Your task to perform on an android device: View the shopping cart on newegg. Search for "logitech g pro" on newegg, select the first entry, and add it to the cart. Image 0: 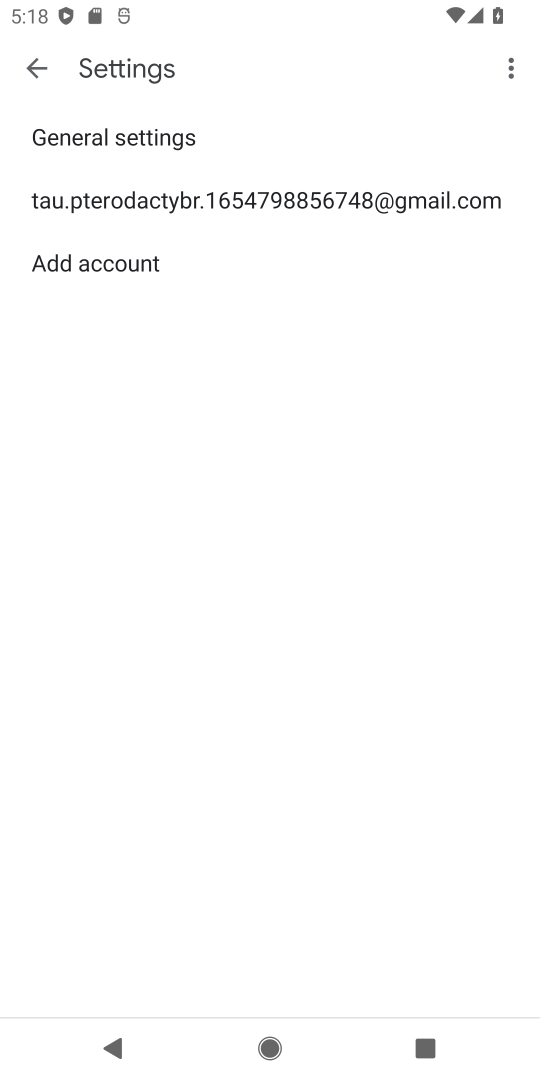
Step 0: press home button
Your task to perform on an android device: View the shopping cart on newegg. Search for "logitech g pro" on newegg, select the first entry, and add it to the cart. Image 1: 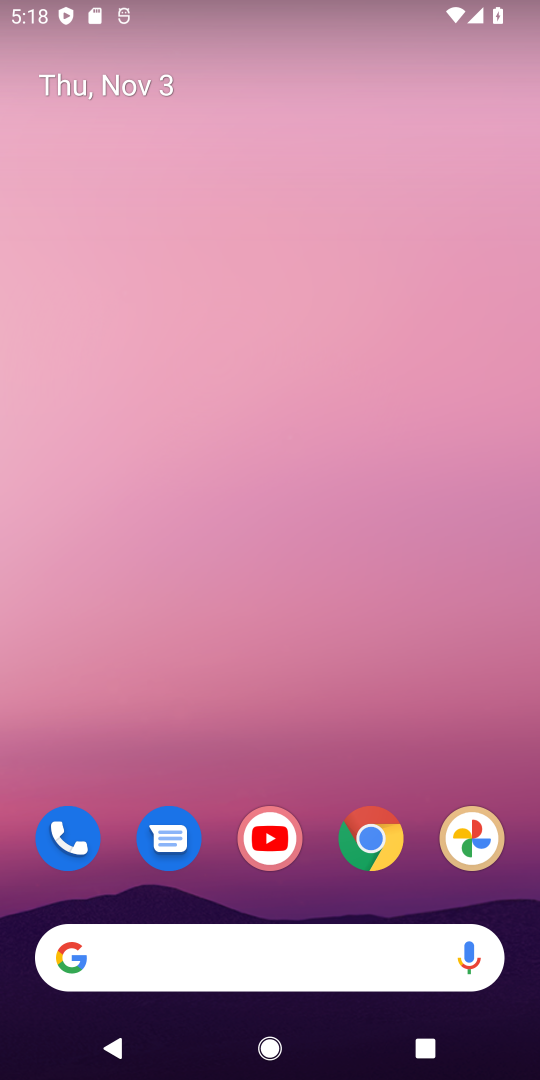
Step 1: click (378, 831)
Your task to perform on an android device: View the shopping cart on newegg. Search for "logitech g pro" on newegg, select the first entry, and add it to the cart. Image 2: 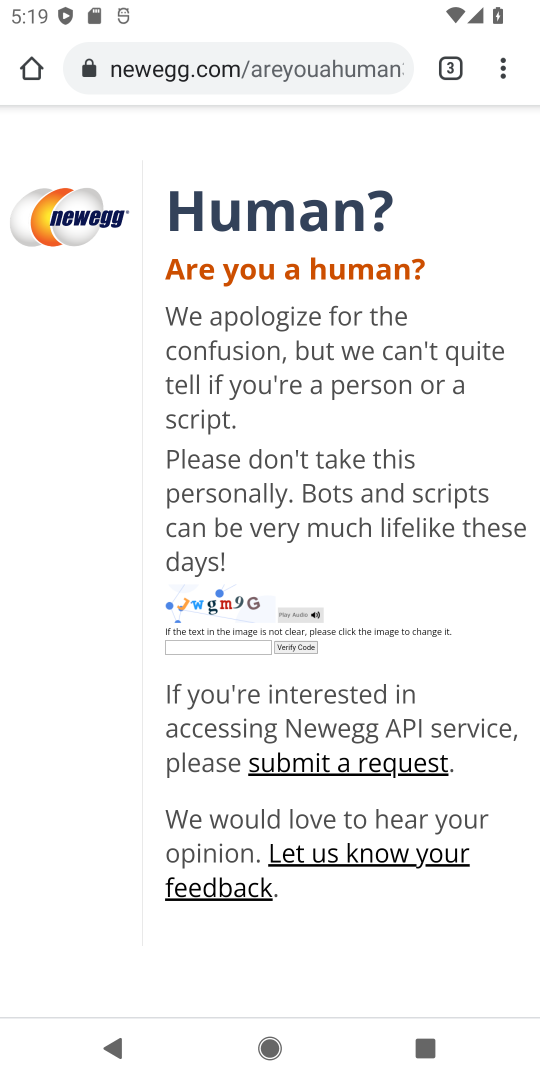
Step 2: click (245, 641)
Your task to perform on an android device: View the shopping cart on newegg. Search for "logitech g pro" on newegg, select the first entry, and add it to the cart. Image 3: 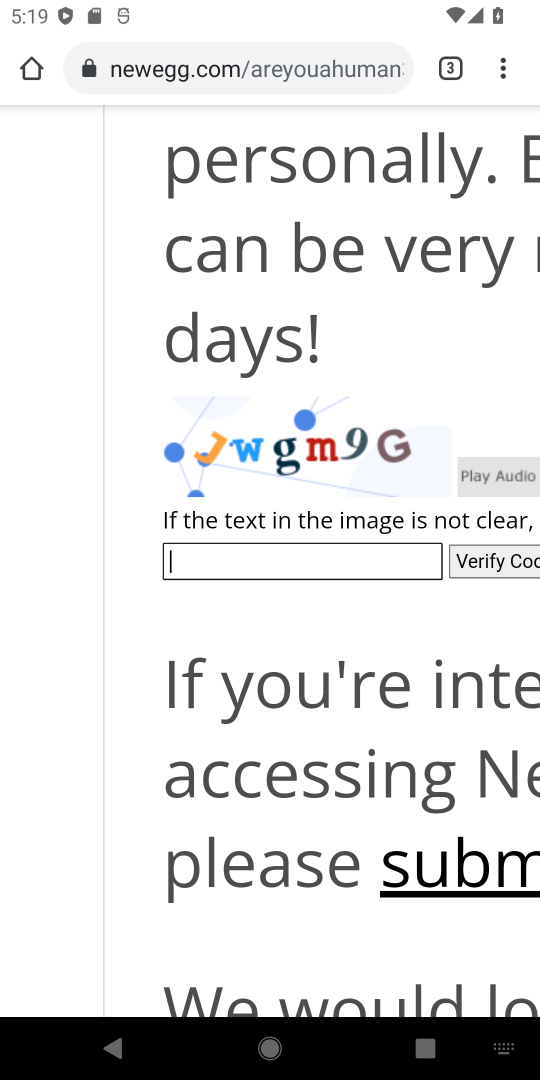
Step 3: type "JWgm9G"
Your task to perform on an android device: View the shopping cart on newegg. Search for "logitech g pro" on newegg, select the first entry, and add it to the cart. Image 4: 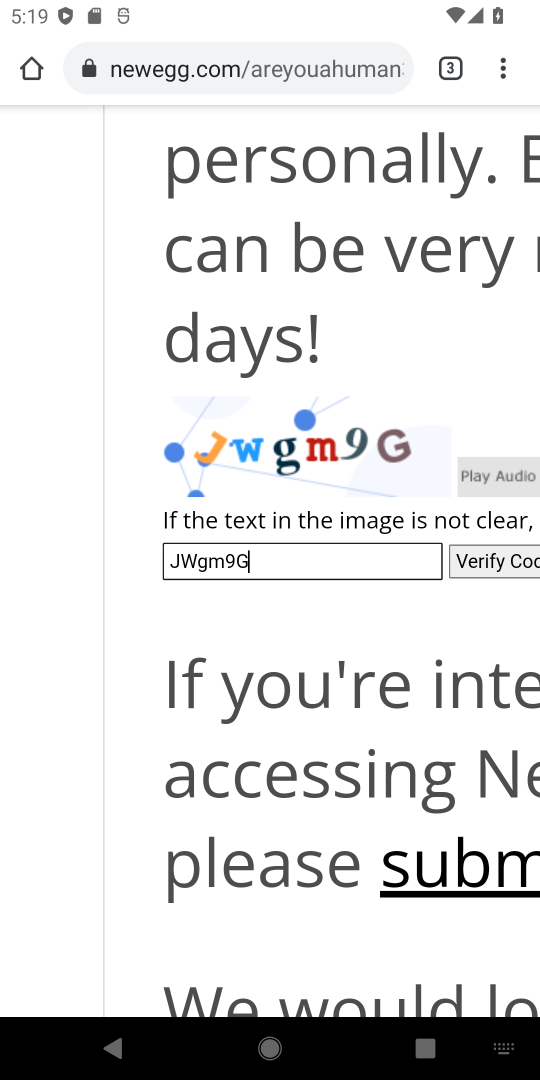
Step 4: click (494, 555)
Your task to perform on an android device: View the shopping cart on newegg. Search for "logitech g pro" on newegg, select the first entry, and add it to the cart. Image 5: 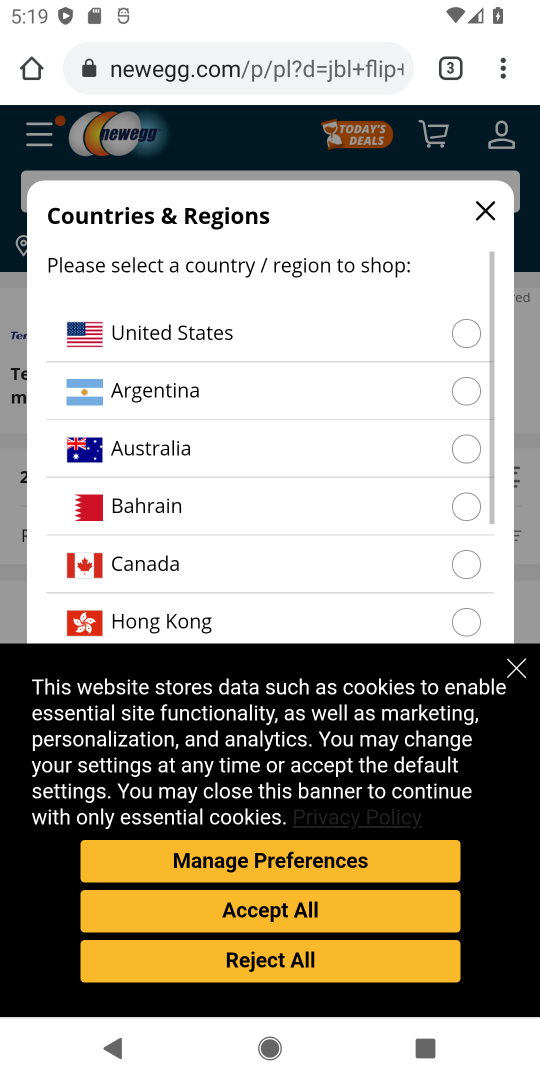
Step 5: click (517, 664)
Your task to perform on an android device: View the shopping cart on newegg. Search for "logitech g pro" on newegg, select the first entry, and add it to the cart. Image 6: 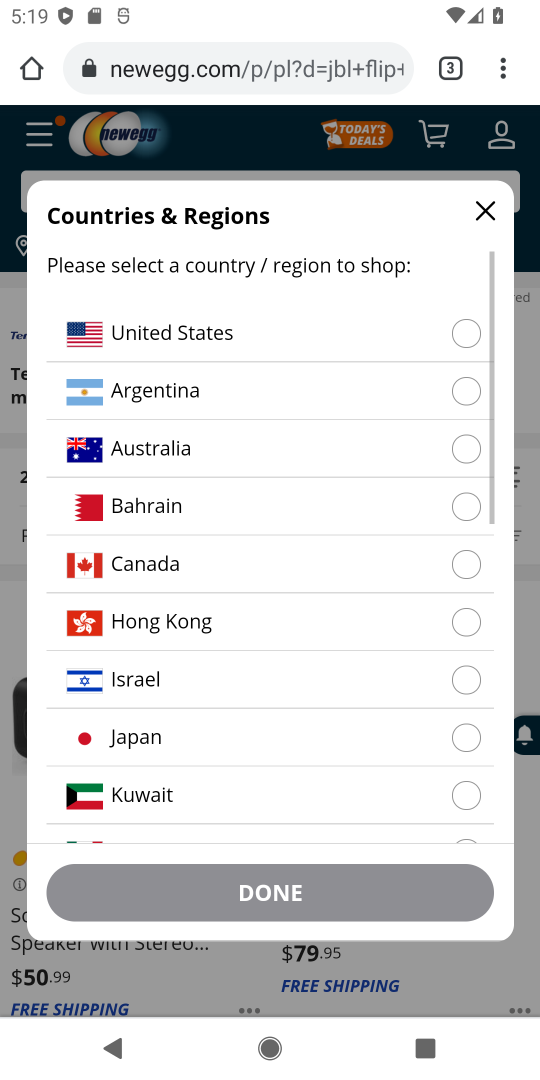
Step 6: click (474, 328)
Your task to perform on an android device: View the shopping cart on newegg. Search for "logitech g pro" on newegg, select the first entry, and add it to the cart. Image 7: 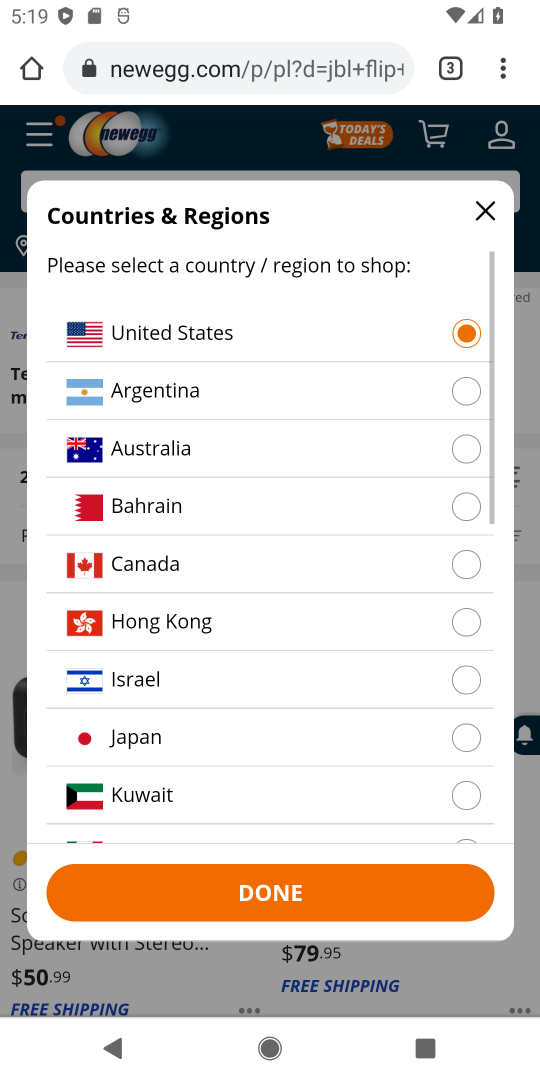
Step 7: click (249, 890)
Your task to perform on an android device: View the shopping cart on newegg. Search for "logitech g pro" on newegg, select the first entry, and add it to the cart. Image 8: 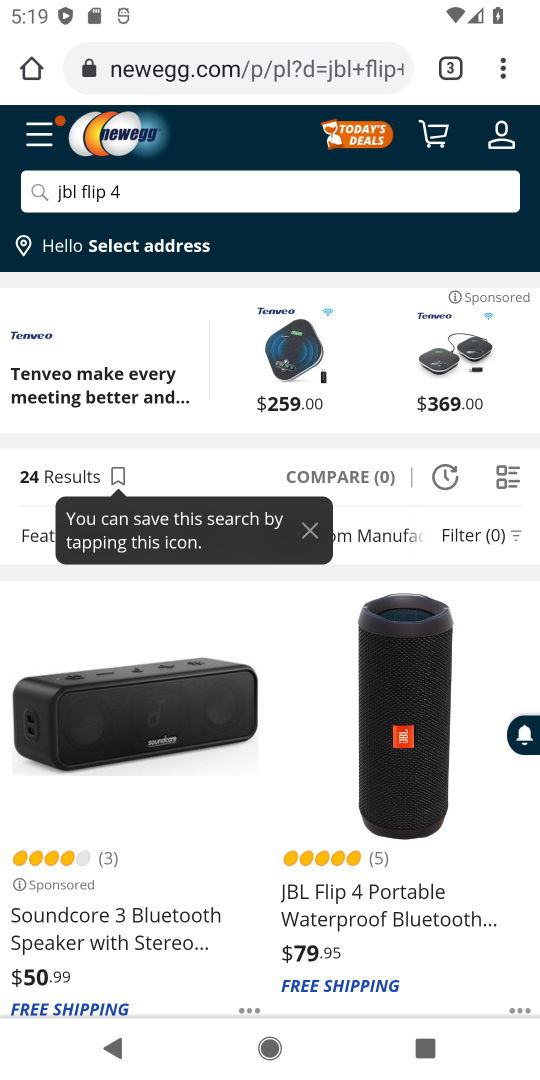
Step 8: click (240, 206)
Your task to perform on an android device: View the shopping cart on newegg. Search for "logitech g pro" on newegg, select the first entry, and add it to the cart. Image 9: 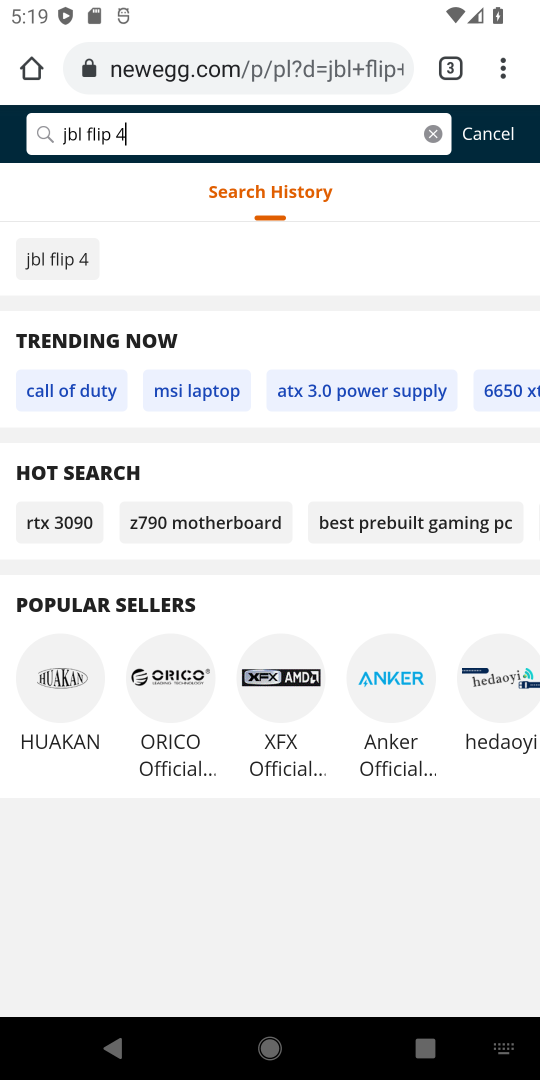
Step 9: click (439, 137)
Your task to perform on an android device: View the shopping cart on newegg. Search for "logitech g pro" on newegg, select the first entry, and add it to the cart. Image 10: 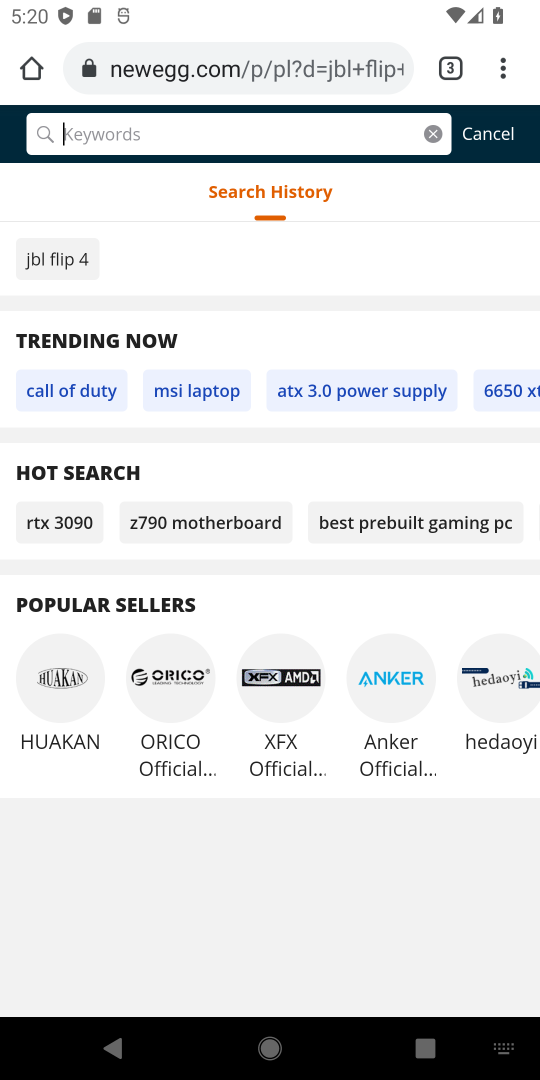
Step 10: type "logitech g pro"
Your task to perform on an android device: View the shopping cart on newegg. Search for "logitech g pro" on newegg, select the first entry, and add it to the cart. Image 11: 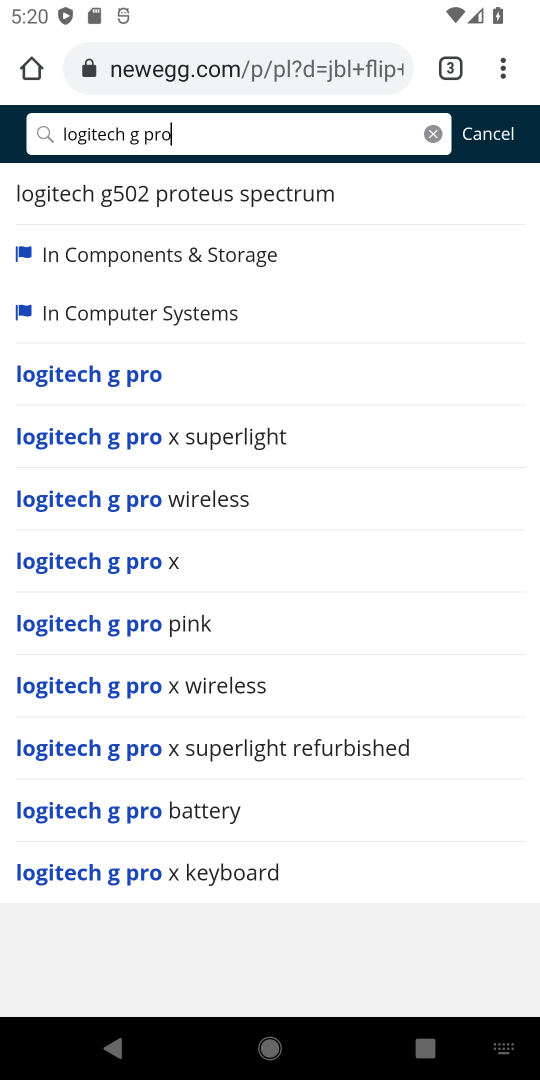
Step 11: click (123, 365)
Your task to perform on an android device: View the shopping cart on newegg. Search for "logitech g pro" on newegg, select the first entry, and add it to the cart. Image 12: 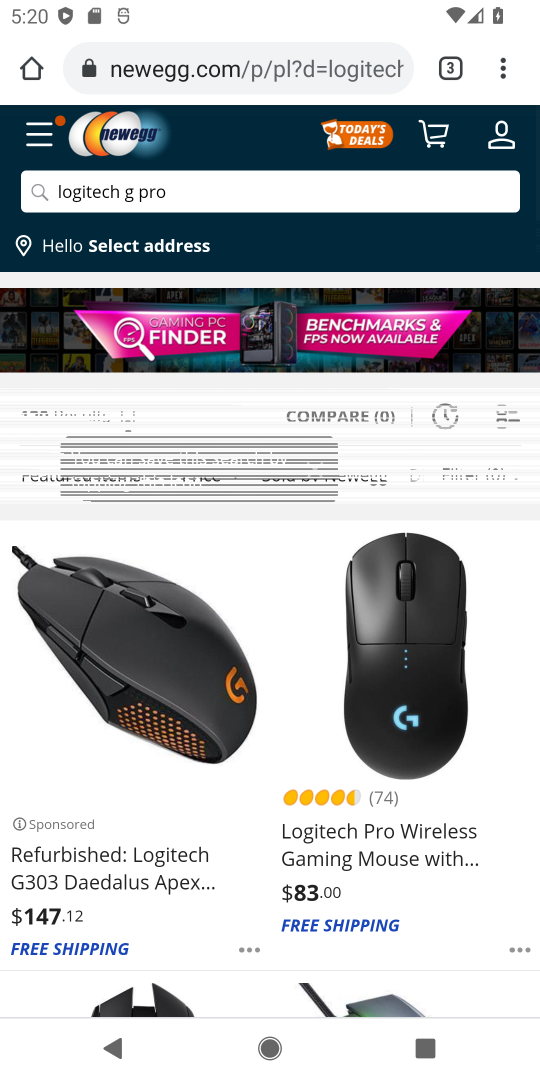
Step 12: click (341, 845)
Your task to perform on an android device: View the shopping cart on newegg. Search for "logitech g pro" on newegg, select the first entry, and add it to the cart. Image 13: 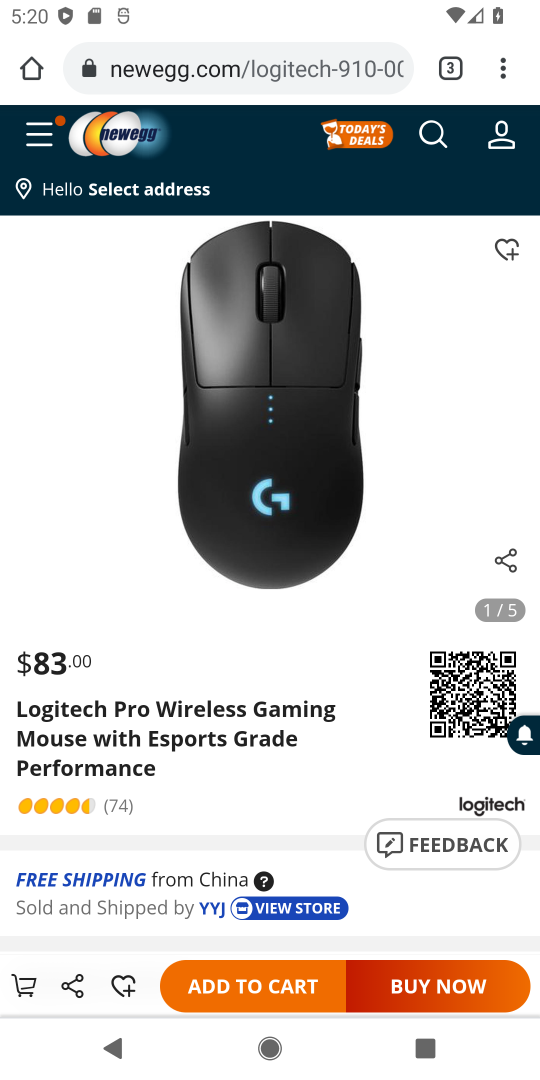
Step 13: click (249, 977)
Your task to perform on an android device: View the shopping cart on newegg. Search for "logitech g pro" on newegg, select the first entry, and add it to the cart. Image 14: 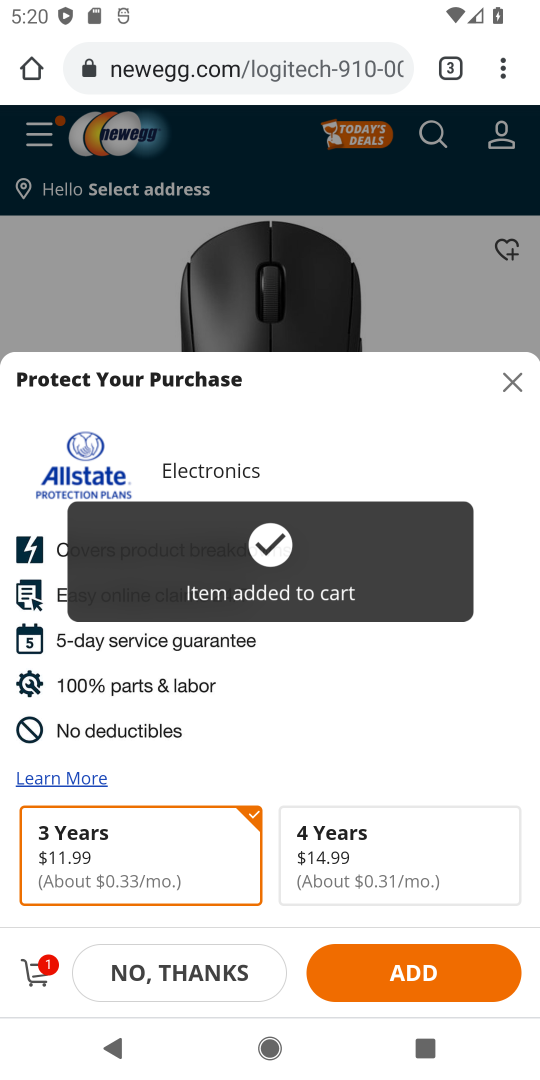
Step 14: task complete